Your task to perform on an android device: read, delete, or share a saved page in the chrome app Image 0: 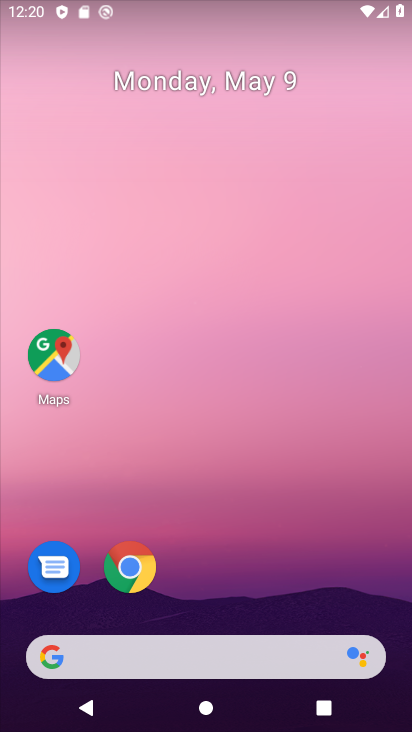
Step 0: click (136, 578)
Your task to perform on an android device: read, delete, or share a saved page in the chrome app Image 1: 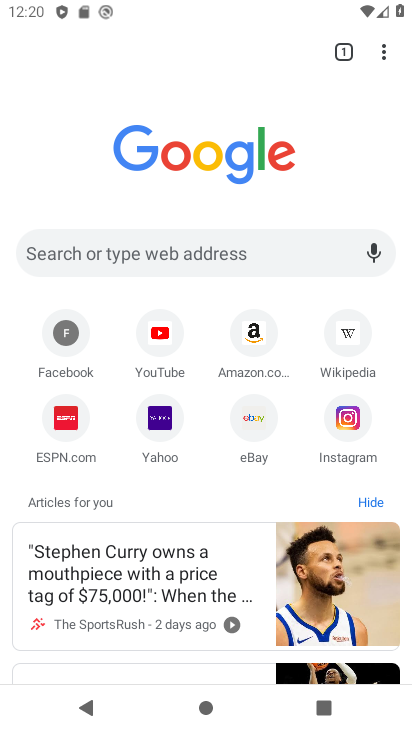
Step 1: click (386, 59)
Your task to perform on an android device: read, delete, or share a saved page in the chrome app Image 2: 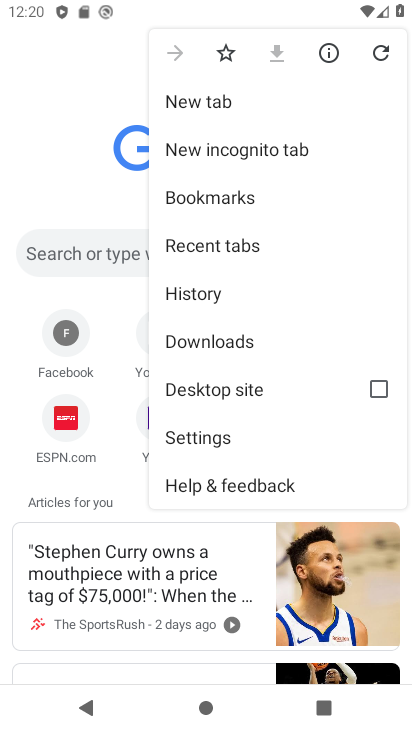
Step 2: click (224, 341)
Your task to perform on an android device: read, delete, or share a saved page in the chrome app Image 3: 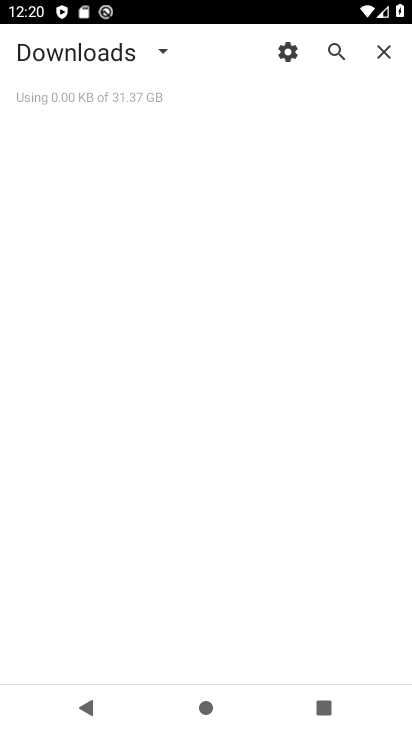
Step 3: task complete